Your task to perform on an android device: Open Reddit.com Image 0: 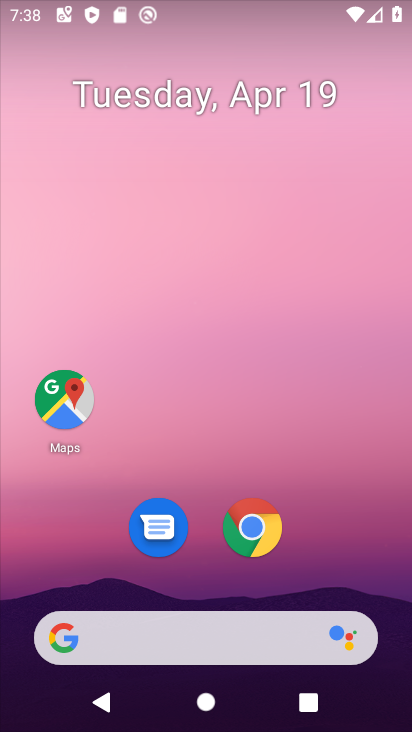
Step 0: click (350, 115)
Your task to perform on an android device: Open Reddit.com Image 1: 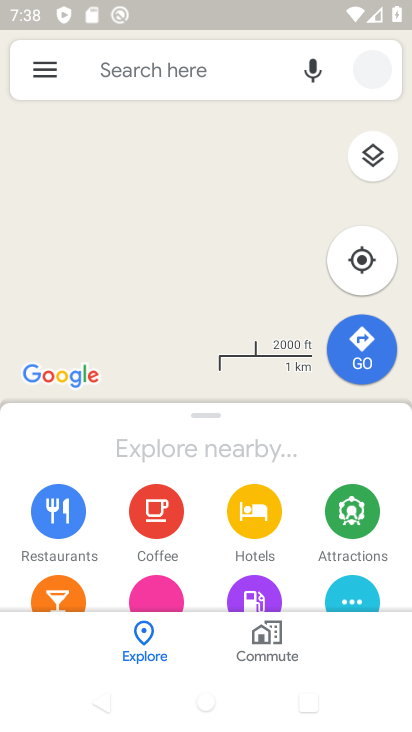
Step 1: press home button
Your task to perform on an android device: Open Reddit.com Image 2: 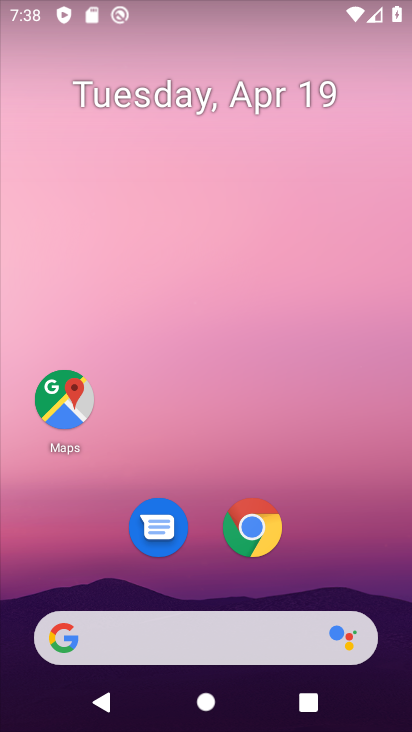
Step 2: click (277, 535)
Your task to perform on an android device: Open Reddit.com Image 3: 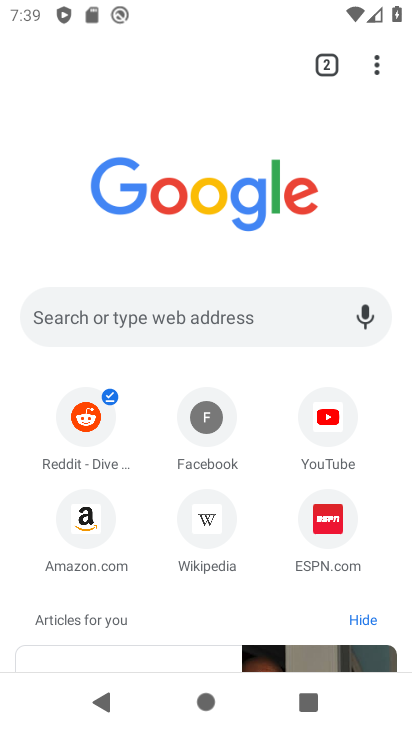
Step 3: click (236, 340)
Your task to perform on an android device: Open Reddit.com Image 4: 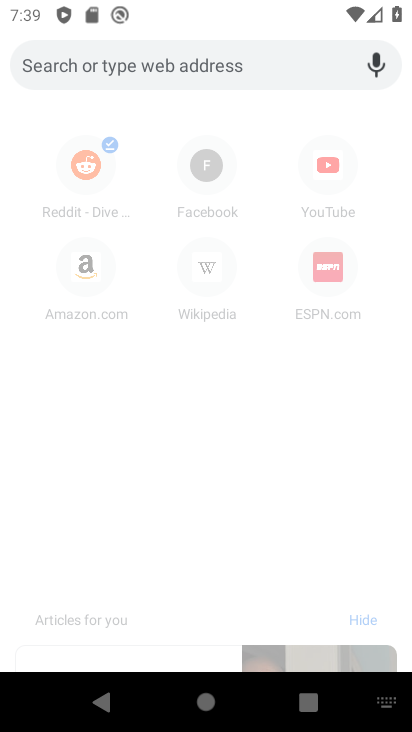
Step 4: type "reddit.com"
Your task to perform on an android device: Open Reddit.com Image 5: 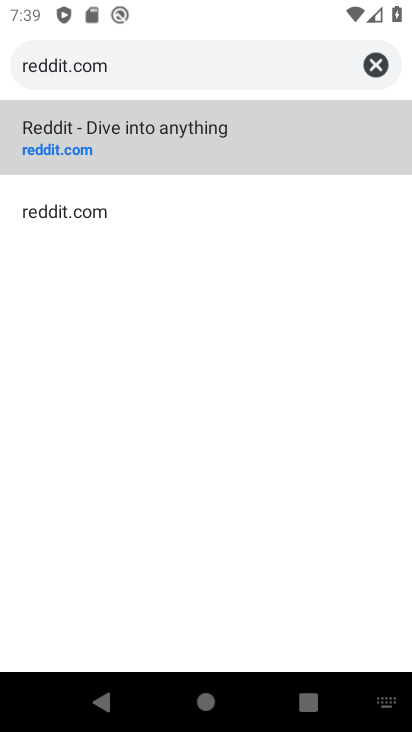
Step 5: click (114, 144)
Your task to perform on an android device: Open Reddit.com Image 6: 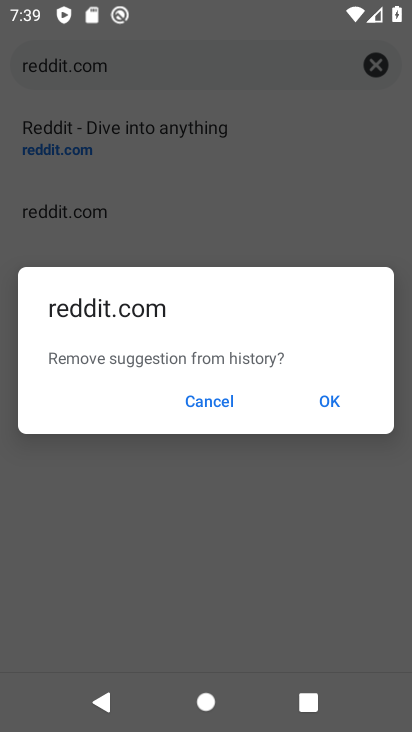
Step 6: click (217, 393)
Your task to perform on an android device: Open Reddit.com Image 7: 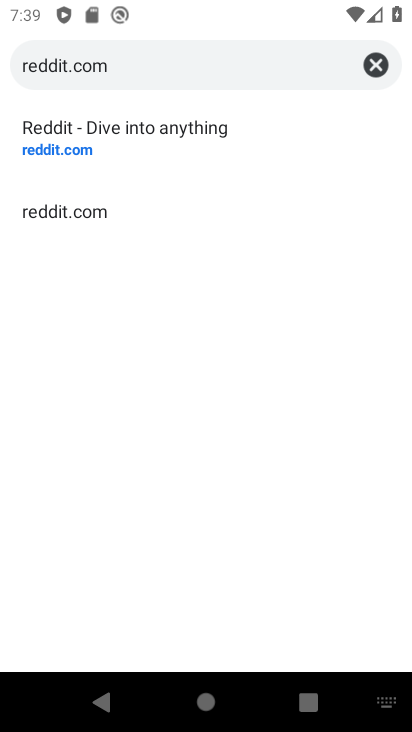
Step 7: click (159, 148)
Your task to perform on an android device: Open Reddit.com Image 8: 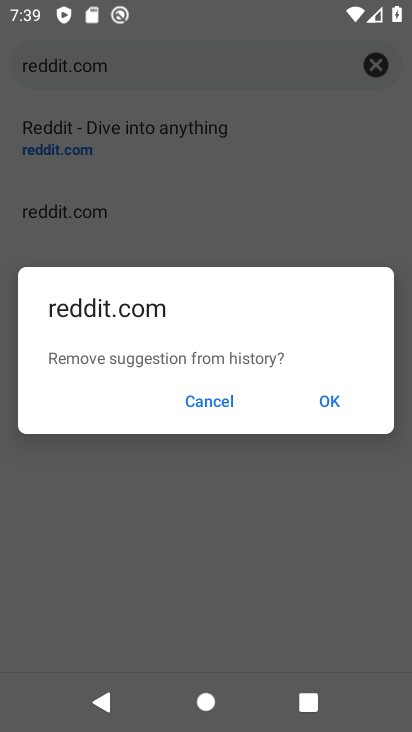
Step 8: click (334, 406)
Your task to perform on an android device: Open Reddit.com Image 9: 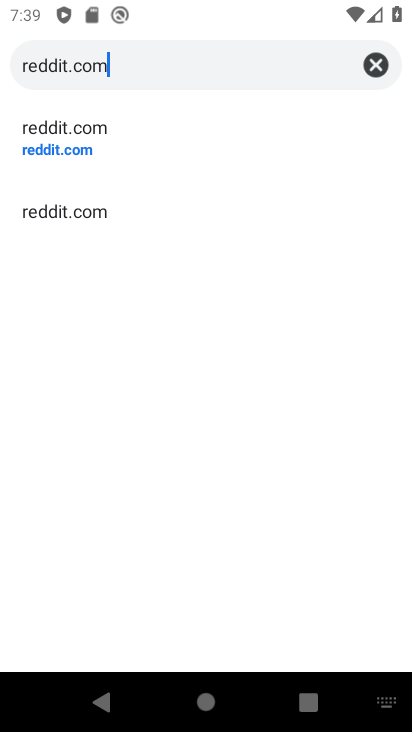
Step 9: click (71, 157)
Your task to perform on an android device: Open Reddit.com Image 10: 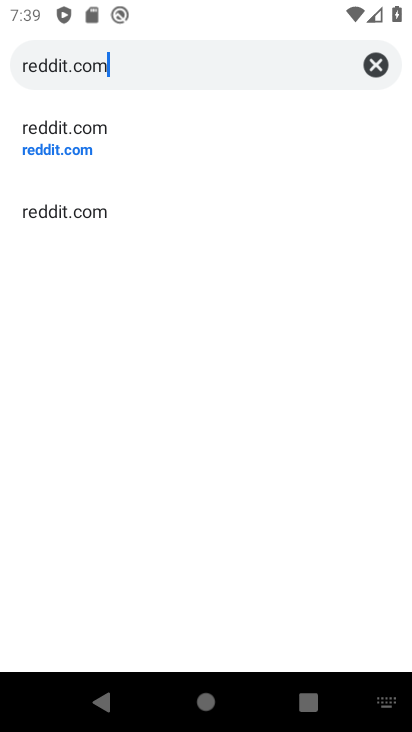
Step 10: click (57, 146)
Your task to perform on an android device: Open Reddit.com Image 11: 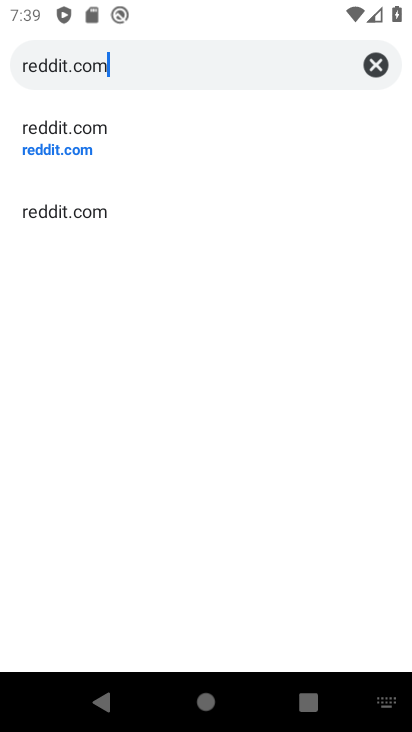
Step 11: click (57, 146)
Your task to perform on an android device: Open Reddit.com Image 12: 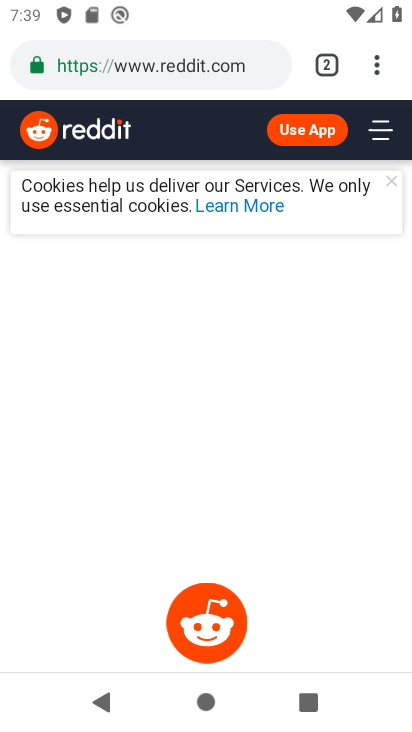
Step 12: task complete